Your task to perform on an android device: toggle location history Image 0: 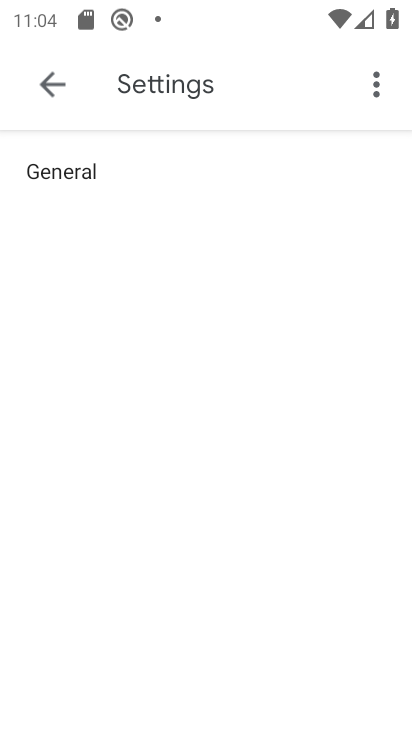
Step 0: press home button
Your task to perform on an android device: toggle location history Image 1: 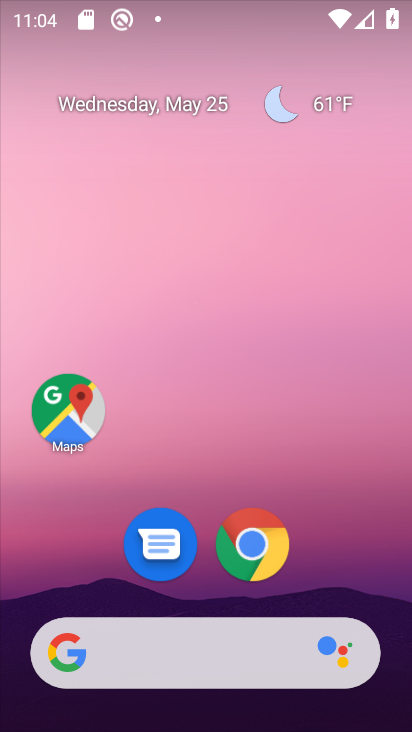
Step 1: drag from (319, 580) to (131, 211)
Your task to perform on an android device: toggle location history Image 2: 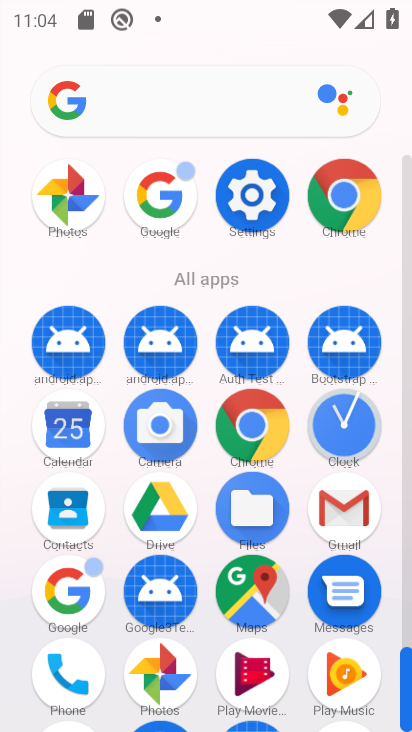
Step 2: click (254, 206)
Your task to perform on an android device: toggle location history Image 3: 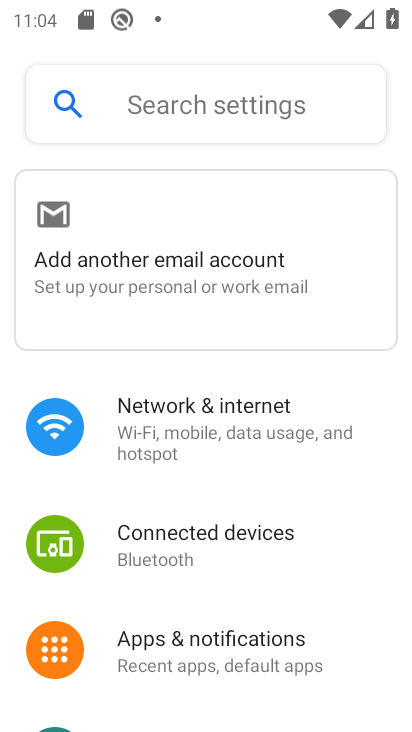
Step 3: drag from (327, 667) to (246, 304)
Your task to perform on an android device: toggle location history Image 4: 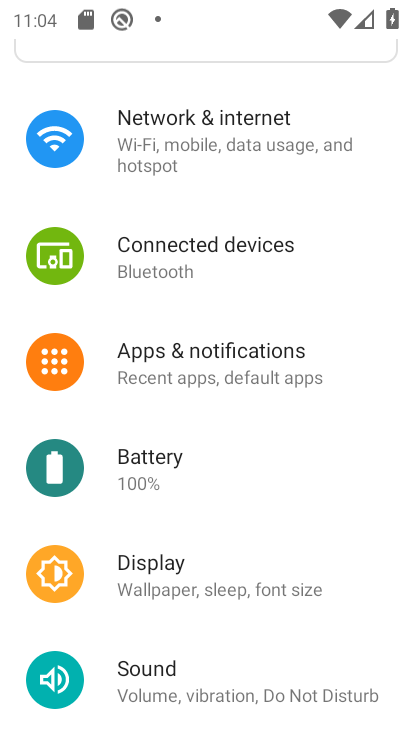
Step 4: drag from (325, 695) to (284, 308)
Your task to perform on an android device: toggle location history Image 5: 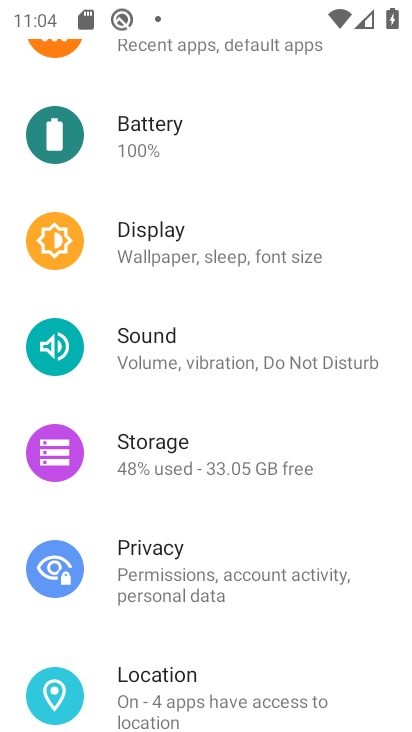
Step 5: click (154, 683)
Your task to perform on an android device: toggle location history Image 6: 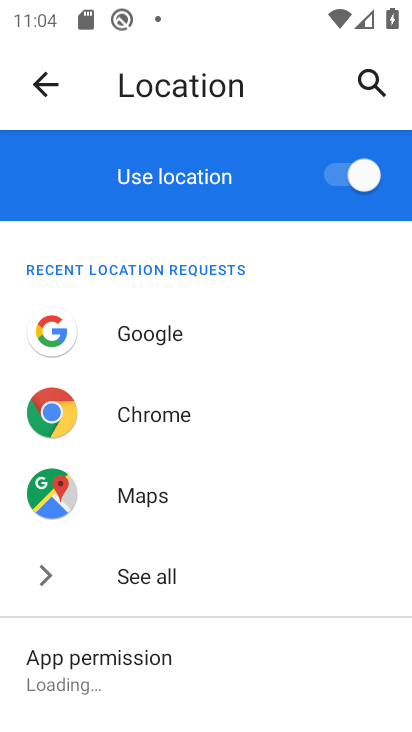
Step 6: drag from (154, 683) to (95, 176)
Your task to perform on an android device: toggle location history Image 7: 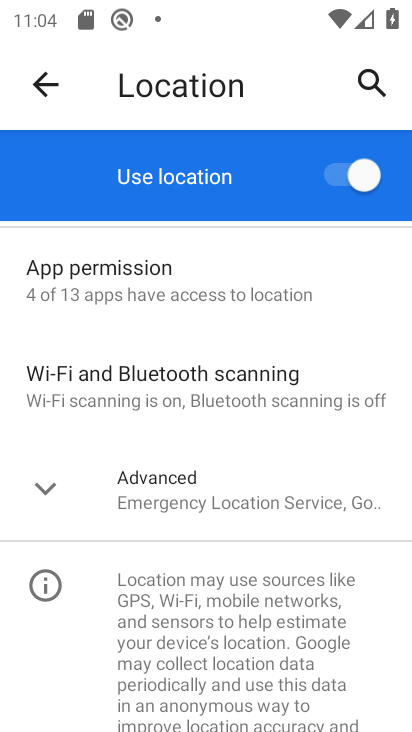
Step 7: click (58, 489)
Your task to perform on an android device: toggle location history Image 8: 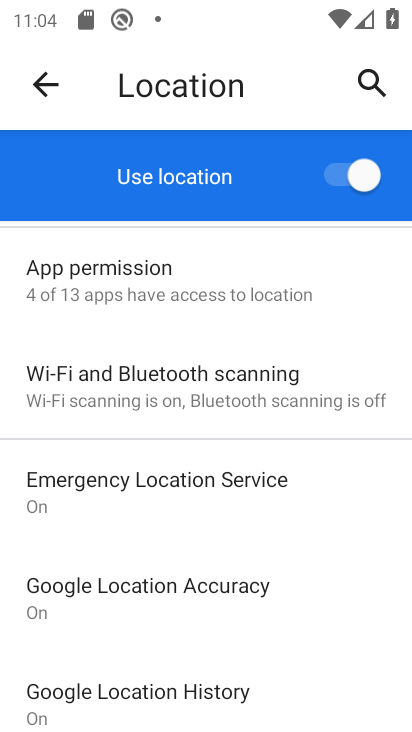
Step 8: click (95, 704)
Your task to perform on an android device: toggle location history Image 9: 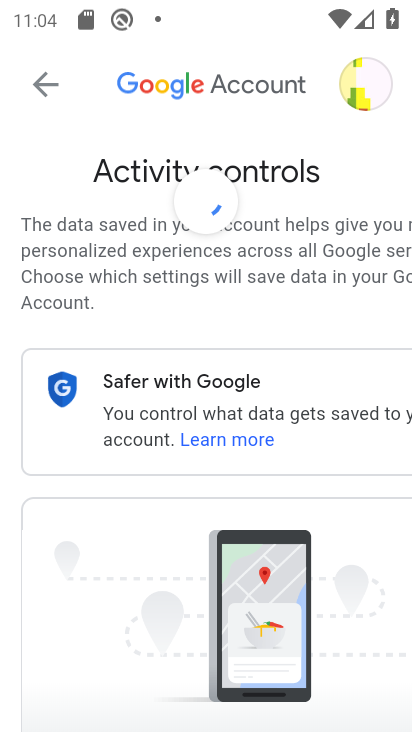
Step 9: drag from (246, 608) to (120, 149)
Your task to perform on an android device: toggle location history Image 10: 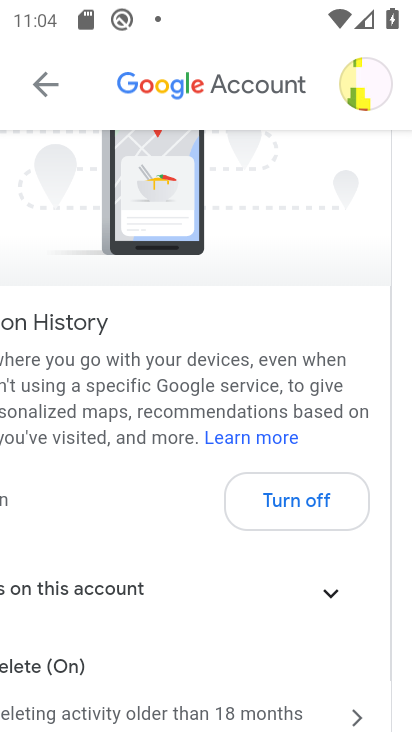
Step 10: click (262, 499)
Your task to perform on an android device: toggle location history Image 11: 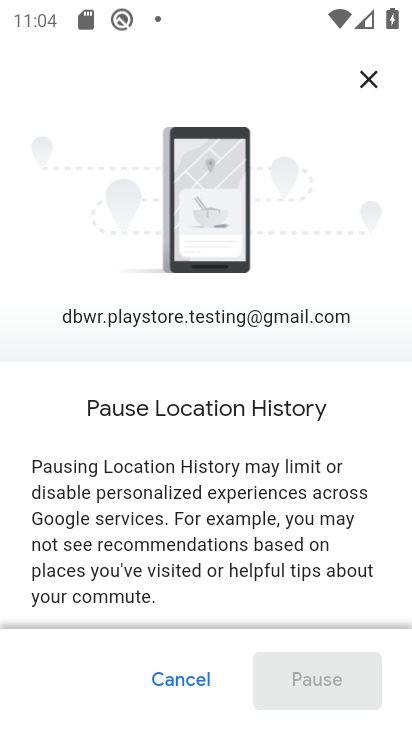
Step 11: drag from (265, 557) to (298, 158)
Your task to perform on an android device: toggle location history Image 12: 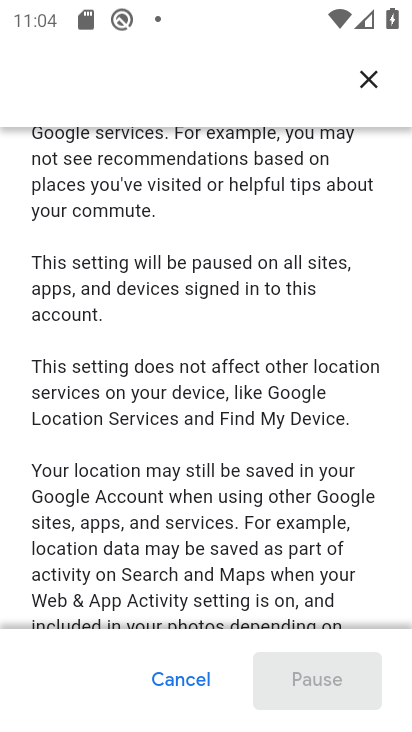
Step 12: drag from (289, 550) to (203, 150)
Your task to perform on an android device: toggle location history Image 13: 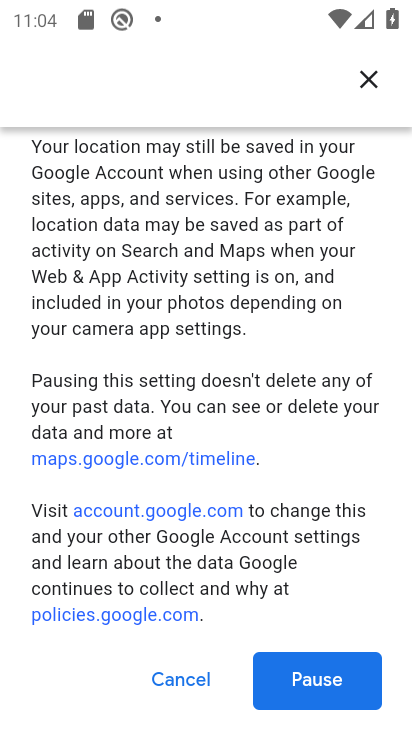
Step 13: click (305, 681)
Your task to perform on an android device: toggle location history Image 14: 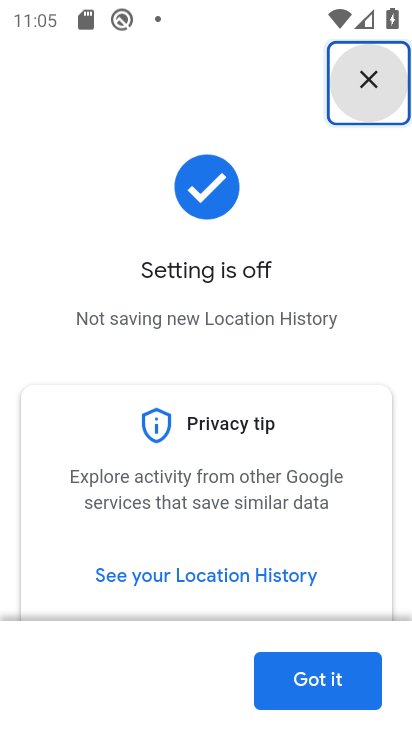
Step 14: click (305, 681)
Your task to perform on an android device: toggle location history Image 15: 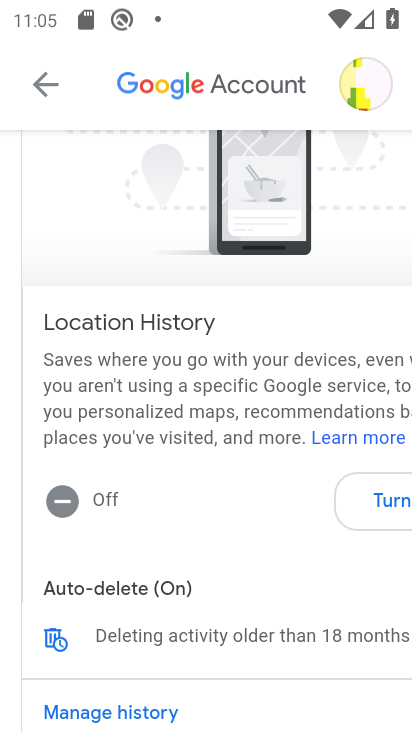
Step 15: task complete